Your task to perform on an android device: Search for Mexican restaurants on Maps Image 0: 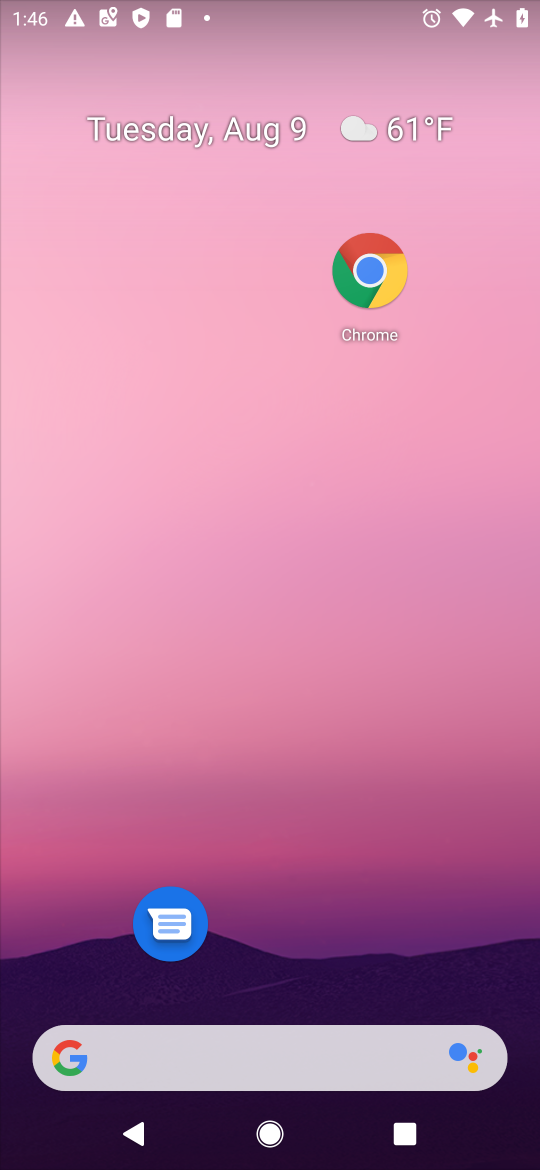
Step 0: drag from (368, 990) to (247, 136)
Your task to perform on an android device: Search for Mexican restaurants on Maps Image 1: 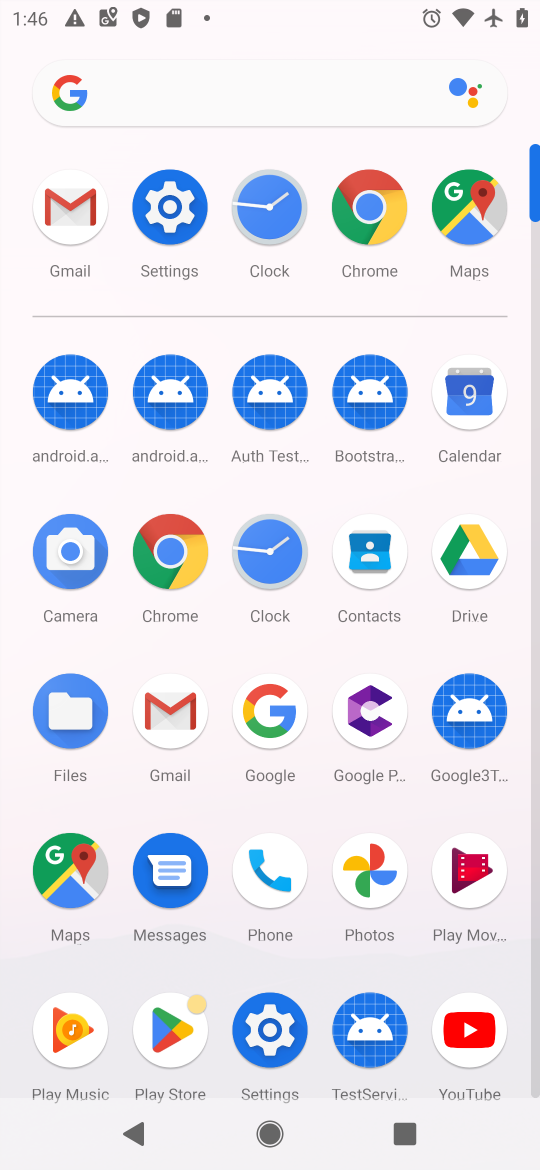
Step 1: click (89, 913)
Your task to perform on an android device: Search for Mexican restaurants on Maps Image 2: 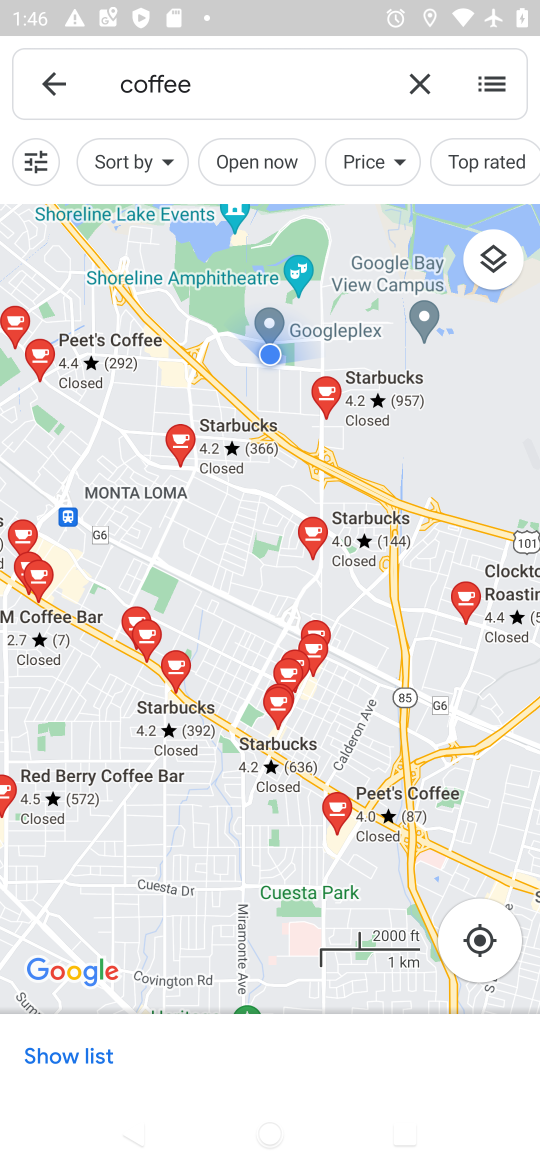
Step 2: click (89, 913)
Your task to perform on an android device: Search for Mexican restaurants on Maps Image 3: 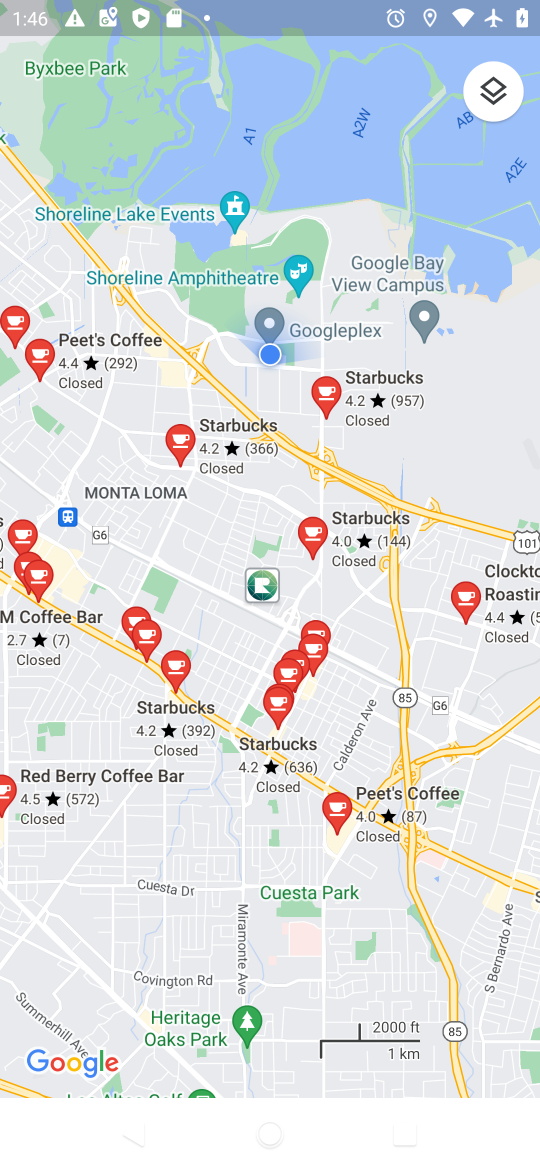
Step 3: click (420, 75)
Your task to perform on an android device: Search for Mexican restaurants on Maps Image 4: 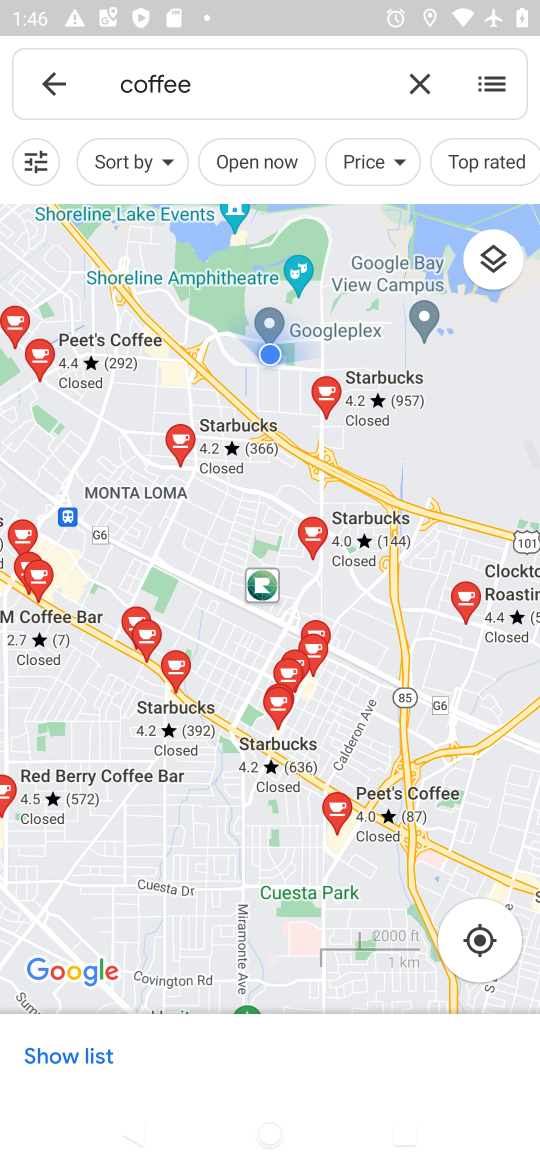
Step 4: click (394, 88)
Your task to perform on an android device: Search for Mexican restaurants on Maps Image 5: 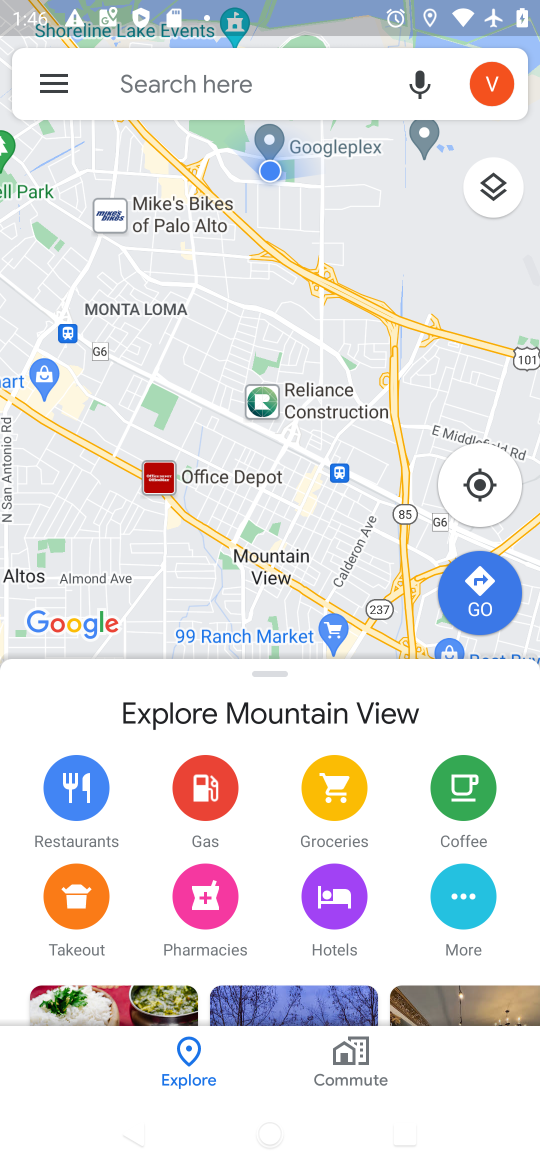
Step 5: click (271, 96)
Your task to perform on an android device: Search for Mexican restaurants on Maps Image 6: 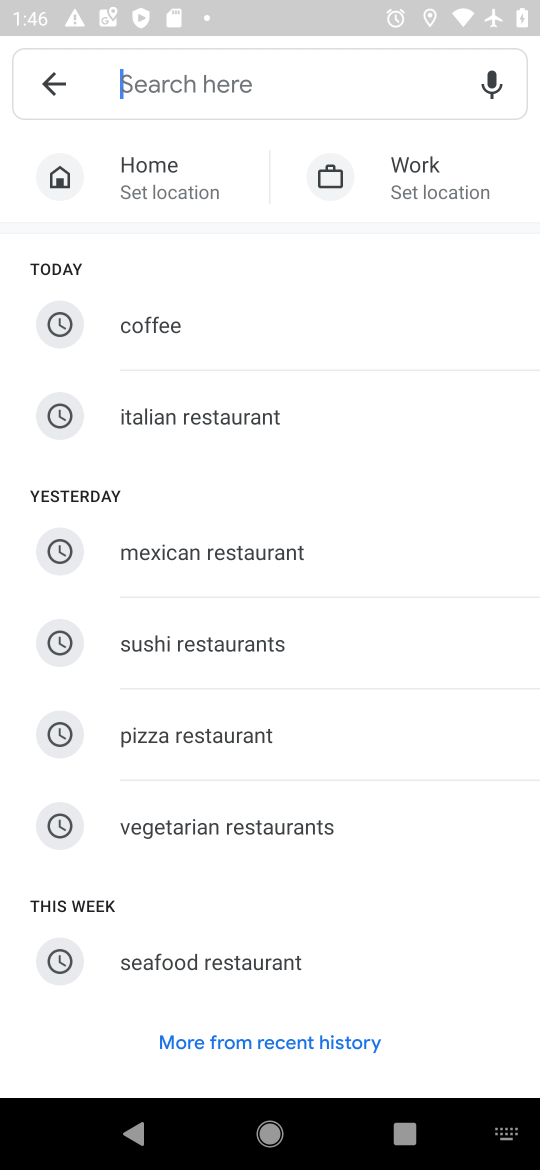
Step 6: click (249, 578)
Your task to perform on an android device: Search for Mexican restaurants on Maps Image 7: 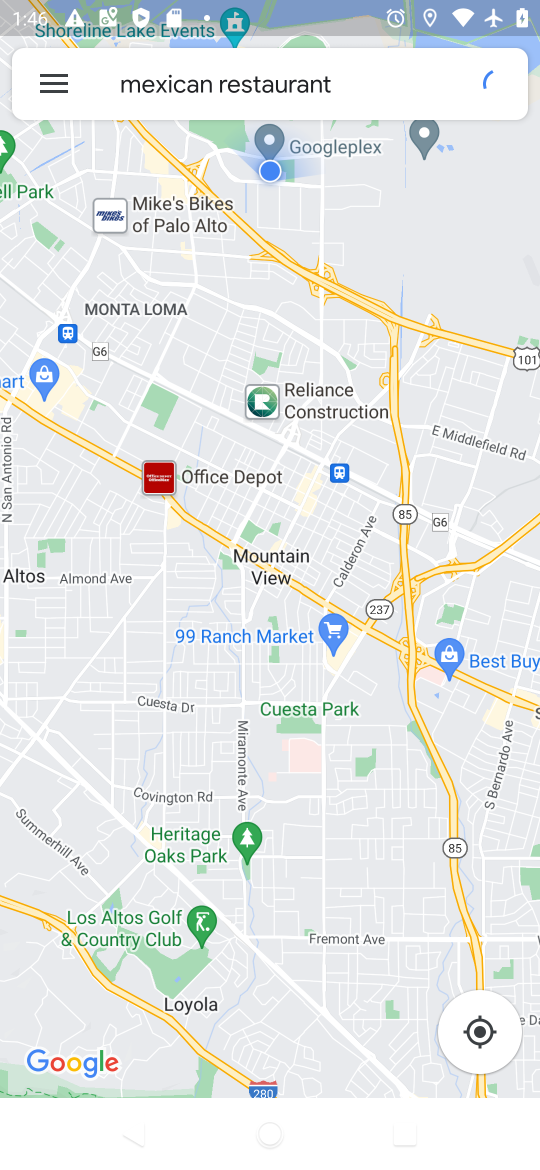
Step 7: task complete